Your task to perform on an android device: Is it going to rain this weekend? Image 0: 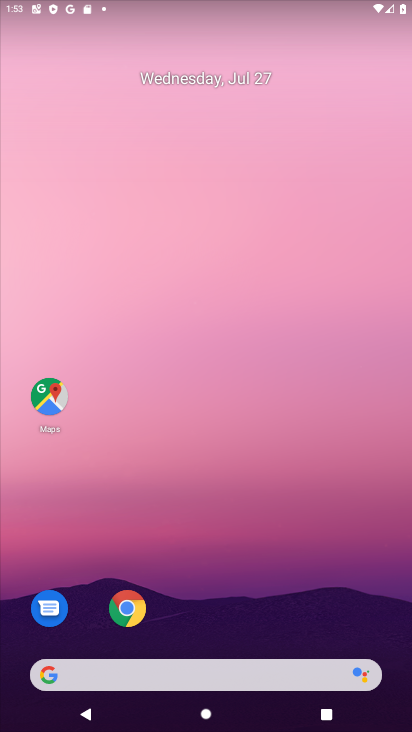
Step 0: click (115, 674)
Your task to perform on an android device: Is it going to rain this weekend? Image 1: 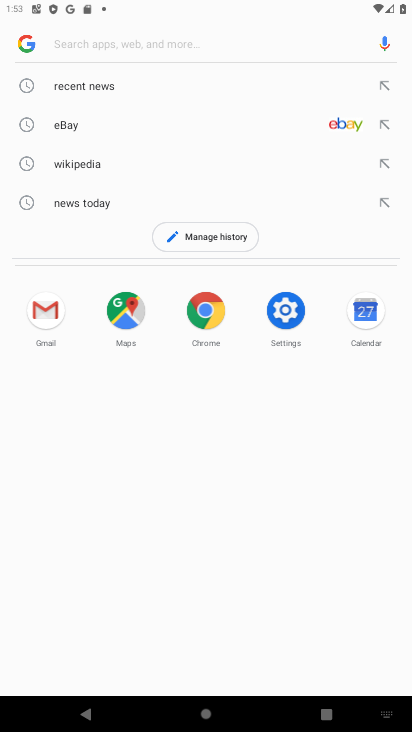
Step 1: type "Is it going to rain this weekend?"
Your task to perform on an android device: Is it going to rain this weekend? Image 2: 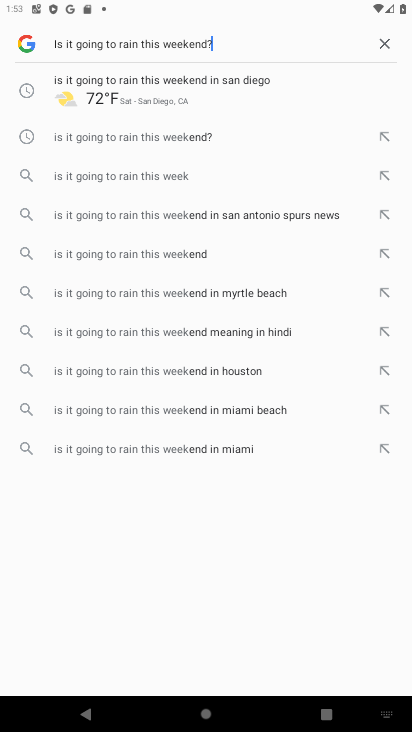
Step 2: type ""
Your task to perform on an android device: Is it going to rain this weekend? Image 3: 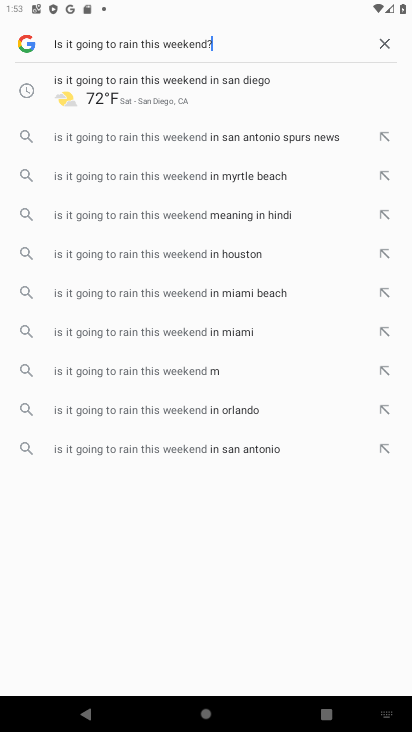
Step 3: task complete